Your task to perform on an android device: Search for sushi restaurants on Maps Image 0: 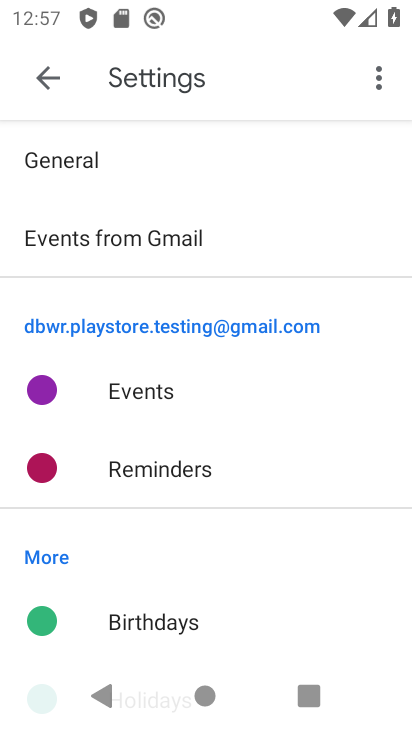
Step 0: press home button
Your task to perform on an android device: Search for sushi restaurants on Maps Image 1: 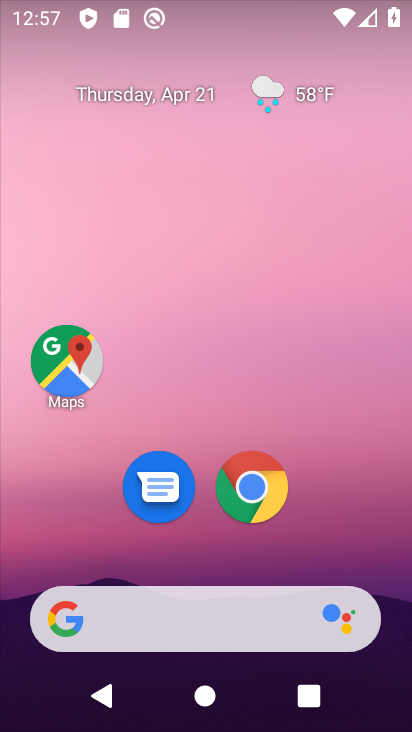
Step 1: click (60, 364)
Your task to perform on an android device: Search for sushi restaurants on Maps Image 2: 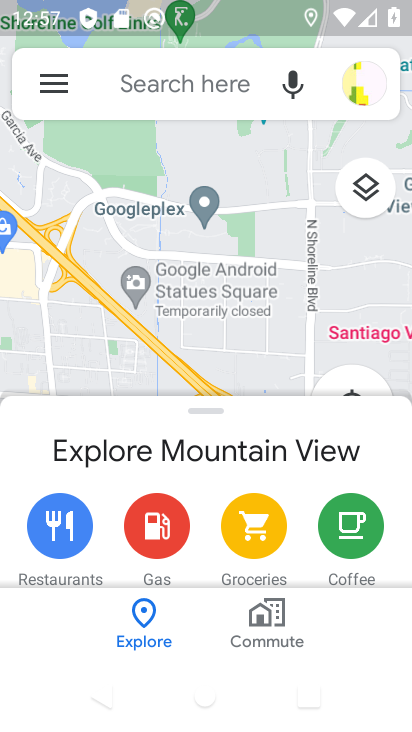
Step 2: click (131, 90)
Your task to perform on an android device: Search for sushi restaurants on Maps Image 3: 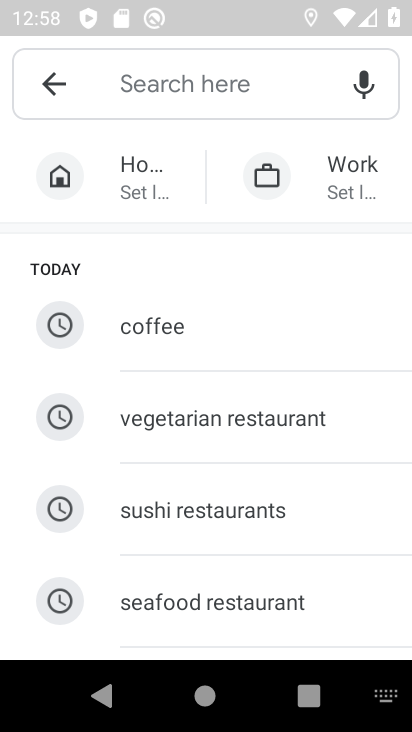
Step 3: type "sushi restaurant"
Your task to perform on an android device: Search for sushi restaurants on Maps Image 4: 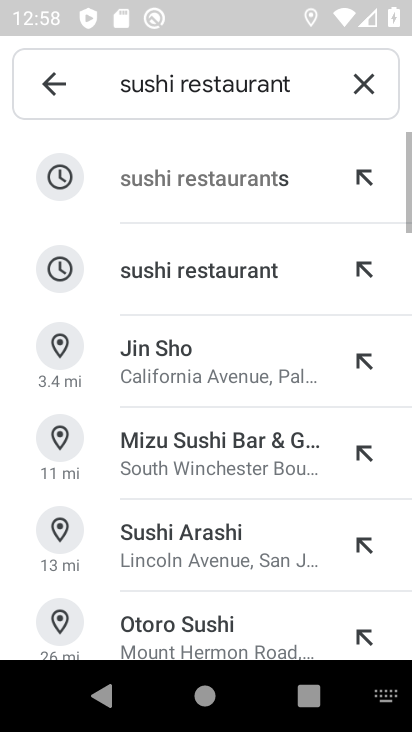
Step 4: click (188, 193)
Your task to perform on an android device: Search for sushi restaurants on Maps Image 5: 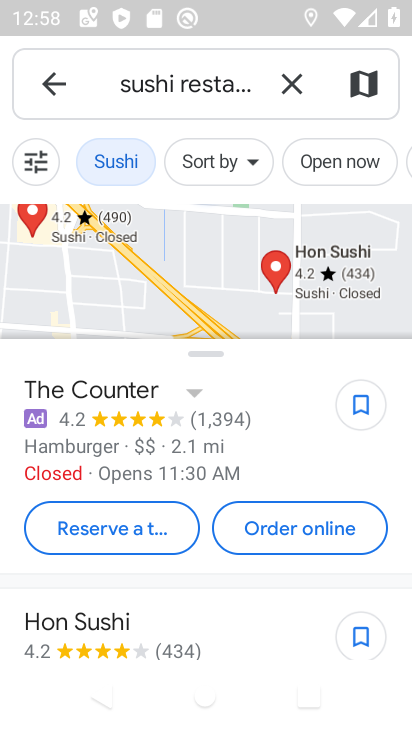
Step 5: task complete